Your task to perform on an android device: remove spam from my inbox in the gmail app Image 0: 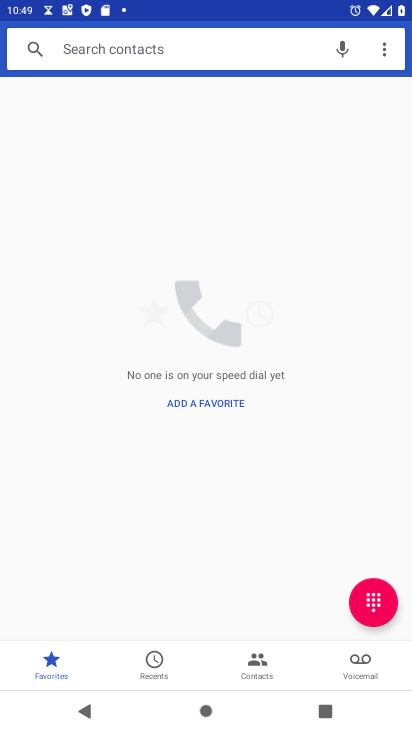
Step 0: press back button
Your task to perform on an android device: remove spam from my inbox in the gmail app Image 1: 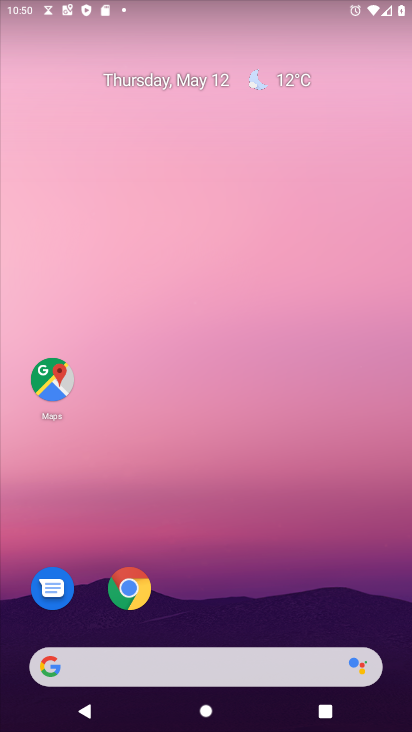
Step 1: drag from (222, 612) to (206, 158)
Your task to perform on an android device: remove spam from my inbox in the gmail app Image 2: 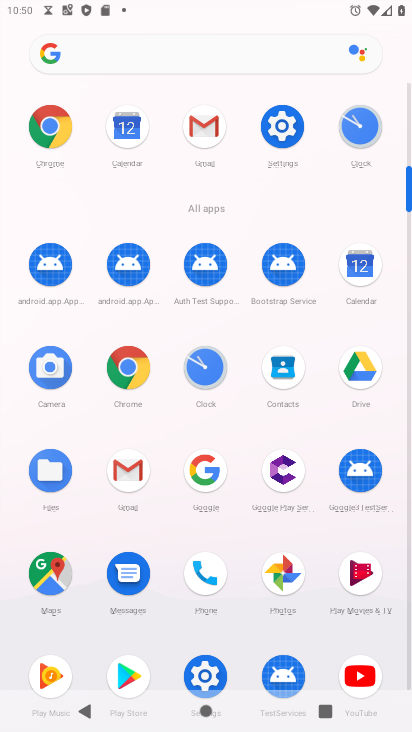
Step 2: click (204, 125)
Your task to perform on an android device: remove spam from my inbox in the gmail app Image 3: 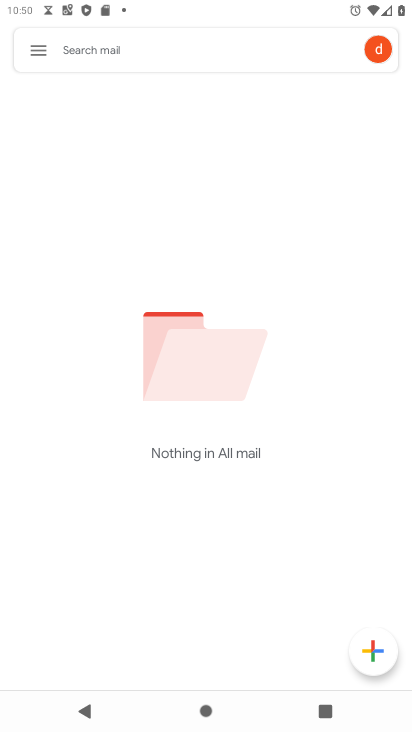
Step 3: click (39, 51)
Your task to perform on an android device: remove spam from my inbox in the gmail app Image 4: 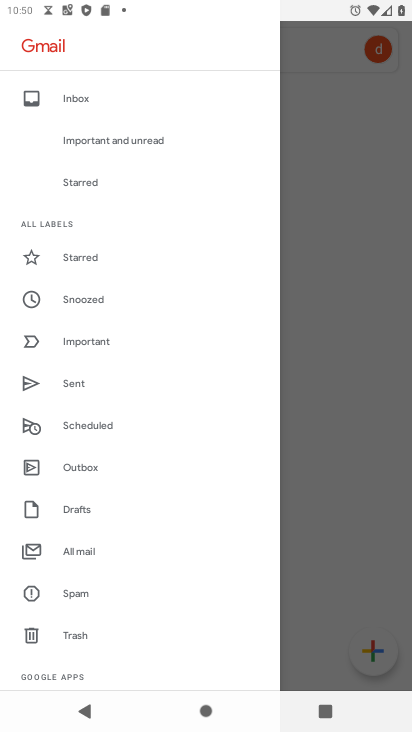
Step 4: drag from (89, 409) to (148, 322)
Your task to perform on an android device: remove spam from my inbox in the gmail app Image 5: 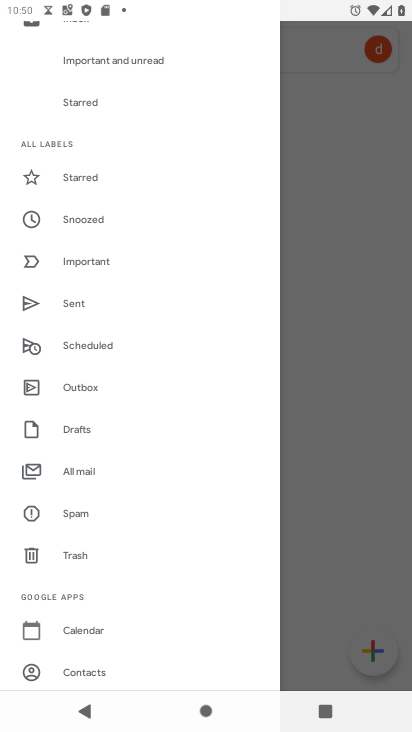
Step 5: drag from (110, 510) to (176, 384)
Your task to perform on an android device: remove spam from my inbox in the gmail app Image 6: 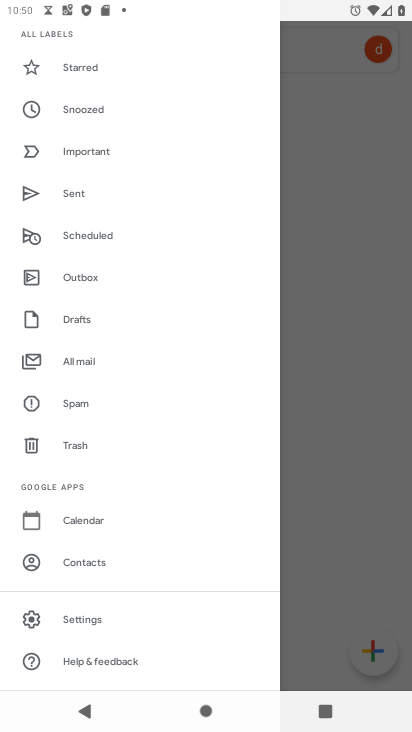
Step 6: click (82, 406)
Your task to perform on an android device: remove spam from my inbox in the gmail app Image 7: 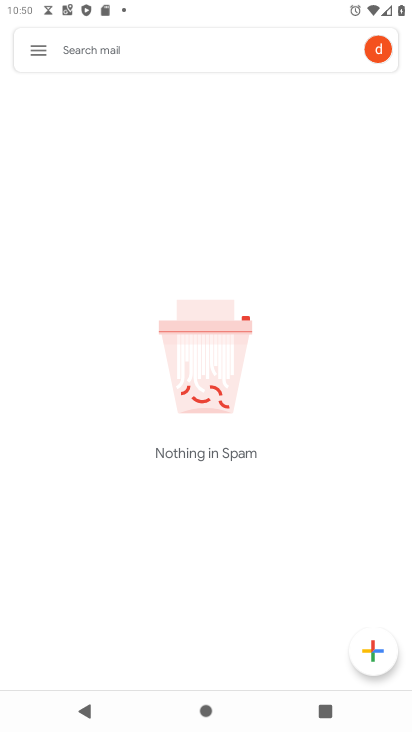
Step 7: task complete